Your task to perform on an android device: turn off picture-in-picture Image 0: 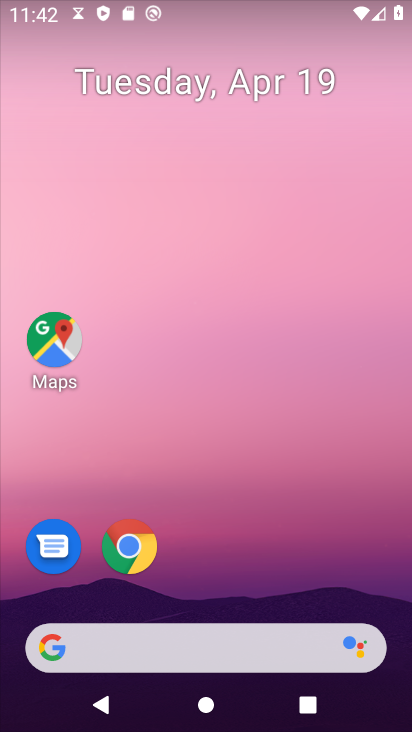
Step 0: drag from (330, 378) to (245, 6)
Your task to perform on an android device: turn off picture-in-picture Image 1: 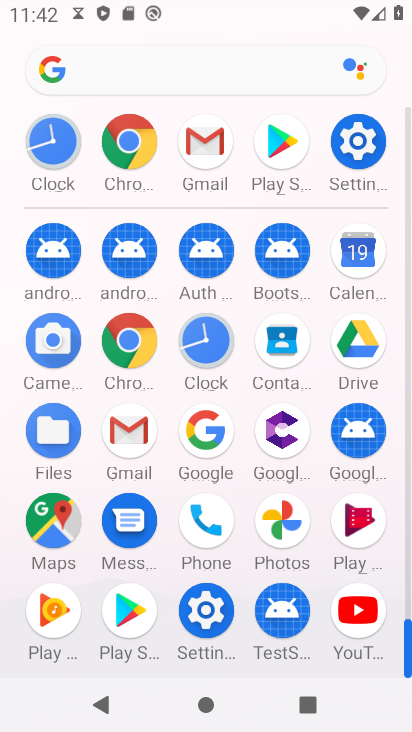
Step 1: drag from (7, 526) to (19, 341)
Your task to perform on an android device: turn off picture-in-picture Image 2: 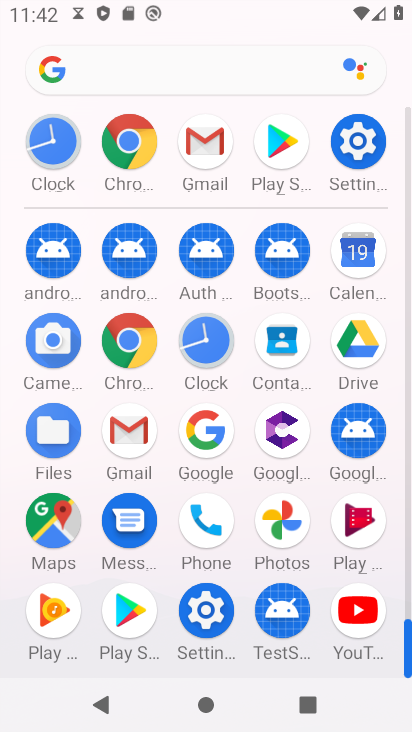
Step 2: click (205, 608)
Your task to perform on an android device: turn off picture-in-picture Image 3: 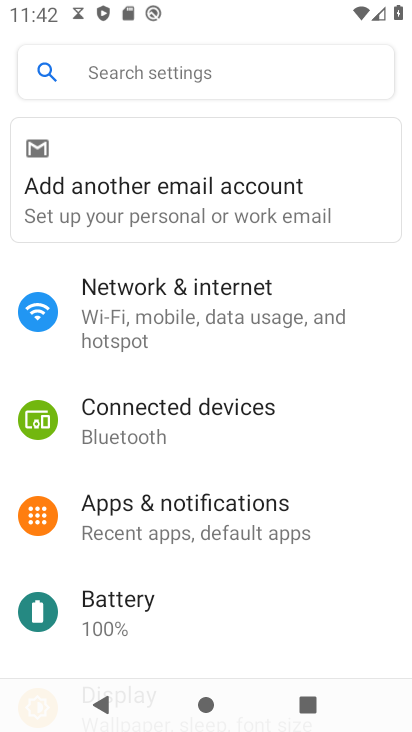
Step 3: drag from (355, 581) to (338, 135)
Your task to perform on an android device: turn off picture-in-picture Image 4: 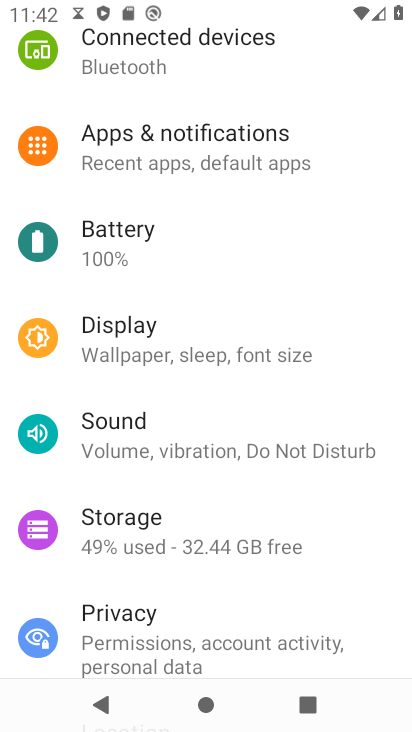
Step 4: drag from (366, 522) to (401, 80)
Your task to perform on an android device: turn off picture-in-picture Image 5: 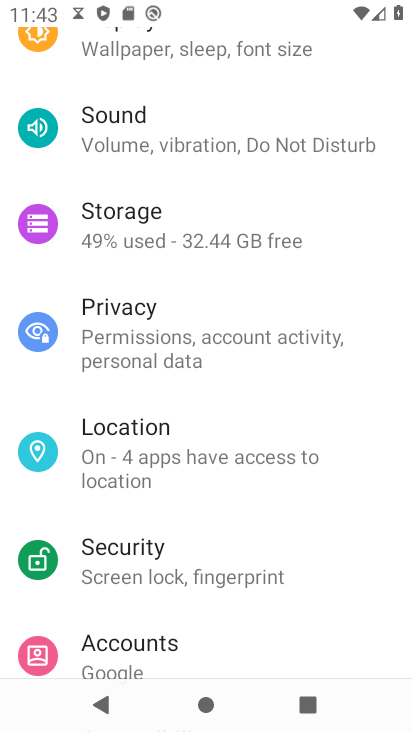
Step 5: drag from (375, 359) to (369, 90)
Your task to perform on an android device: turn off picture-in-picture Image 6: 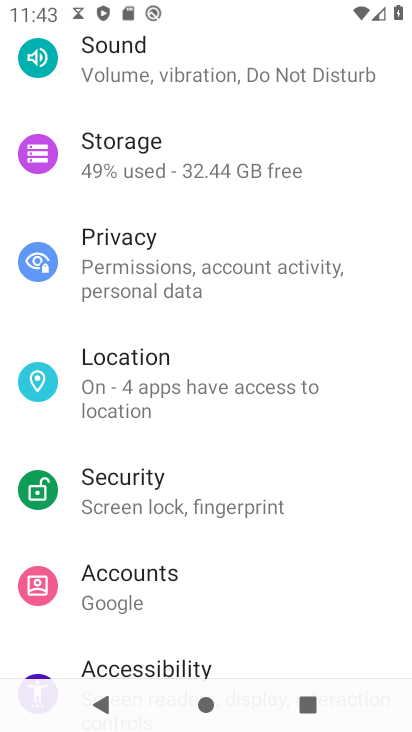
Step 6: drag from (330, 582) to (321, 147)
Your task to perform on an android device: turn off picture-in-picture Image 7: 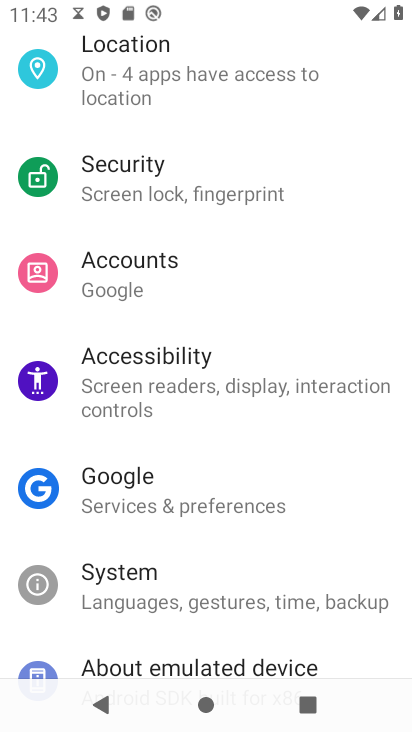
Step 7: drag from (301, 127) to (309, 453)
Your task to perform on an android device: turn off picture-in-picture Image 8: 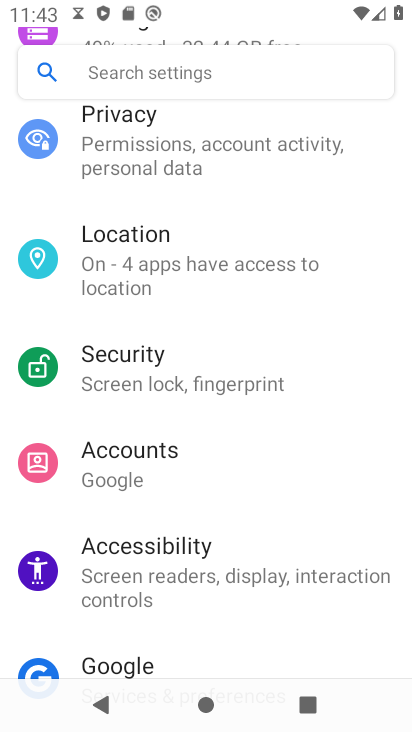
Step 8: drag from (302, 117) to (295, 534)
Your task to perform on an android device: turn off picture-in-picture Image 9: 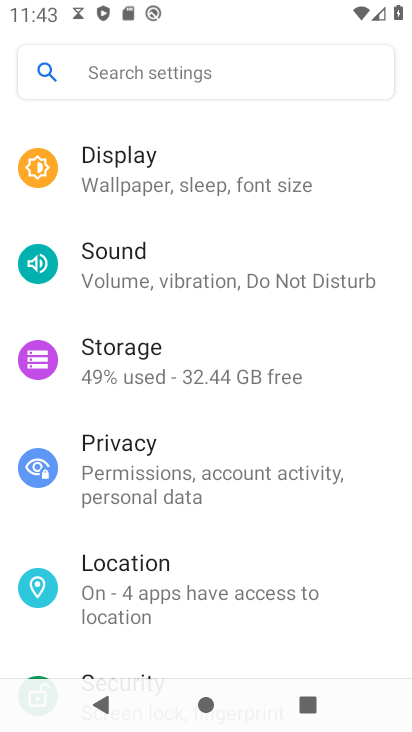
Step 9: drag from (277, 208) to (278, 551)
Your task to perform on an android device: turn off picture-in-picture Image 10: 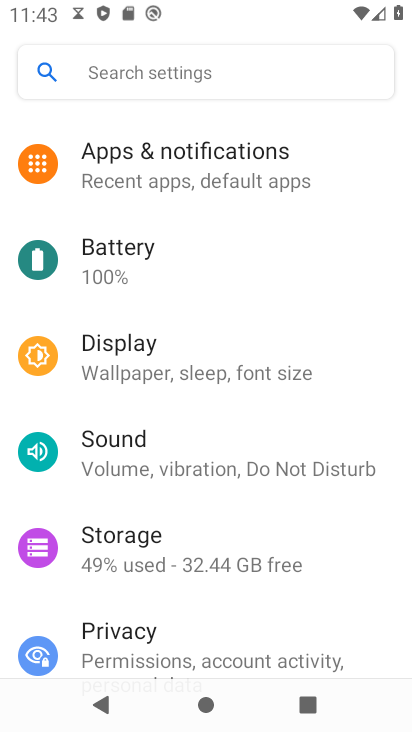
Step 10: click (201, 153)
Your task to perform on an android device: turn off picture-in-picture Image 11: 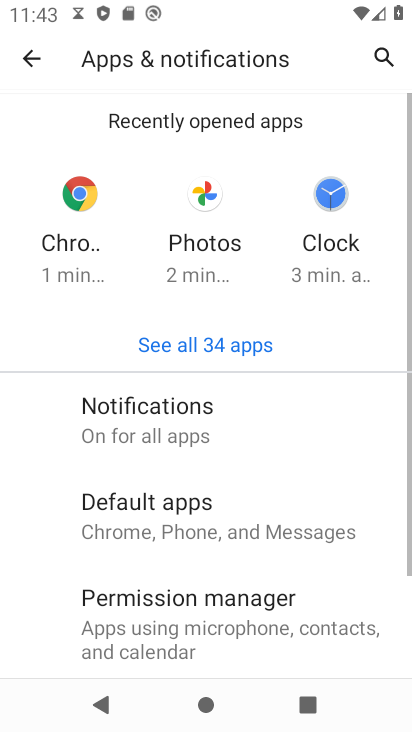
Step 11: drag from (302, 507) to (276, 174)
Your task to perform on an android device: turn off picture-in-picture Image 12: 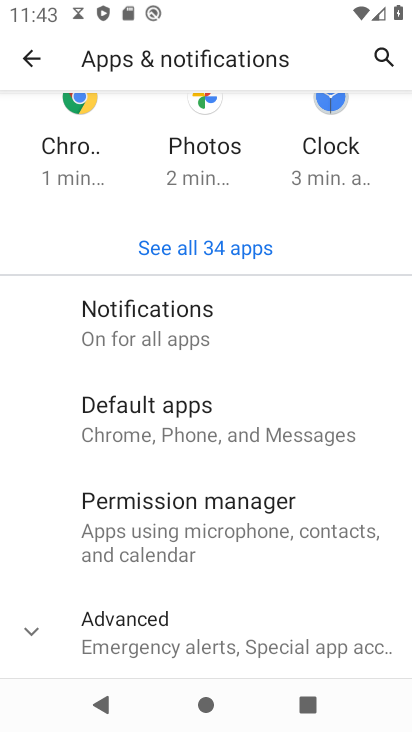
Step 12: click (217, 638)
Your task to perform on an android device: turn off picture-in-picture Image 13: 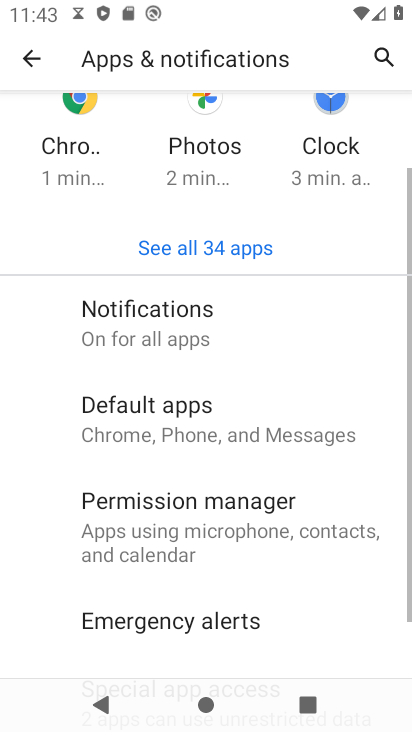
Step 13: drag from (346, 585) to (330, 255)
Your task to perform on an android device: turn off picture-in-picture Image 14: 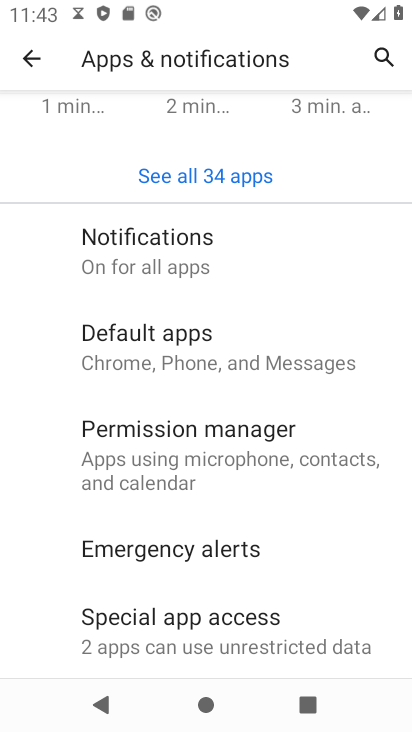
Step 14: click (215, 623)
Your task to perform on an android device: turn off picture-in-picture Image 15: 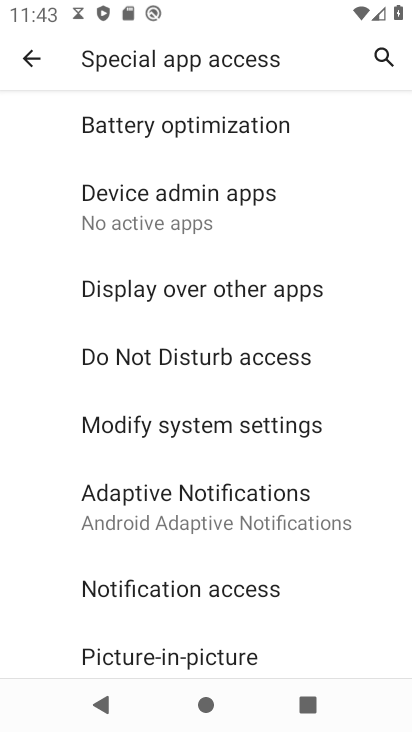
Step 15: drag from (348, 549) to (344, 133)
Your task to perform on an android device: turn off picture-in-picture Image 16: 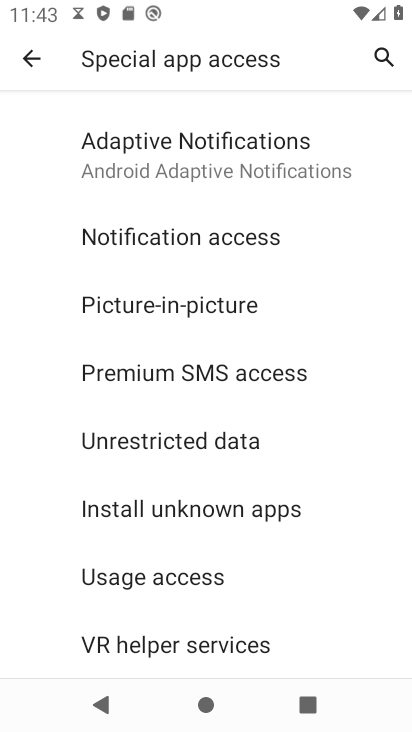
Step 16: drag from (300, 555) to (314, 197)
Your task to perform on an android device: turn off picture-in-picture Image 17: 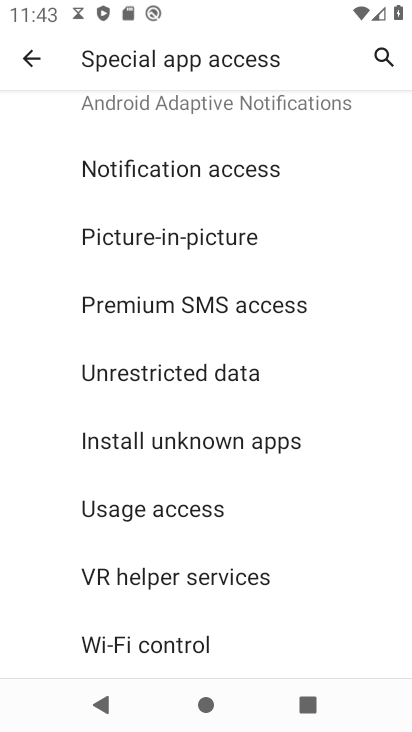
Step 17: click (254, 230)
Your task to perform on an android device: turn off picture-in-picture Image 18: 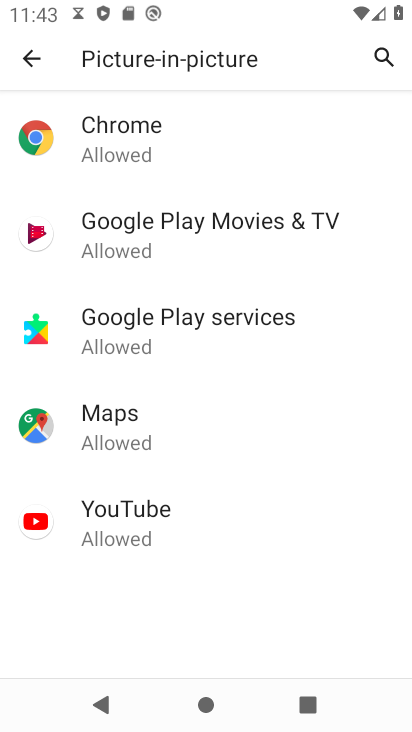
Step 18: click (199, 131)
Your task to perform on an android device: turn off picture-in-picture Image 19: 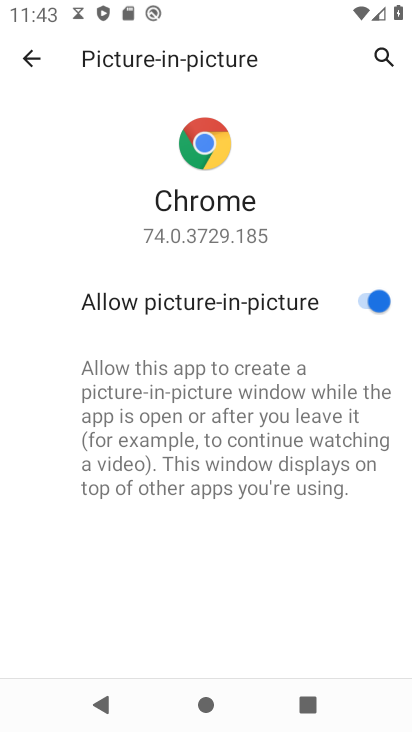
Step 19: click (363, 293)
Your task to perform on an android device: turn off picture-in-picture Image 20: 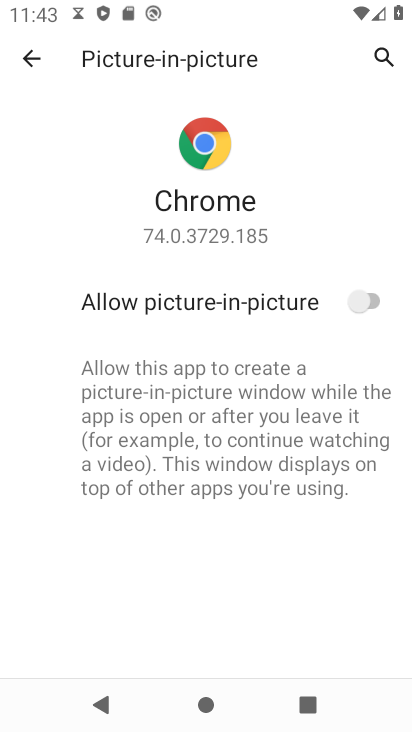
Step 20: click (17, 57)
Your task to perform on an android device: turn off picture-in-picture Image 21: 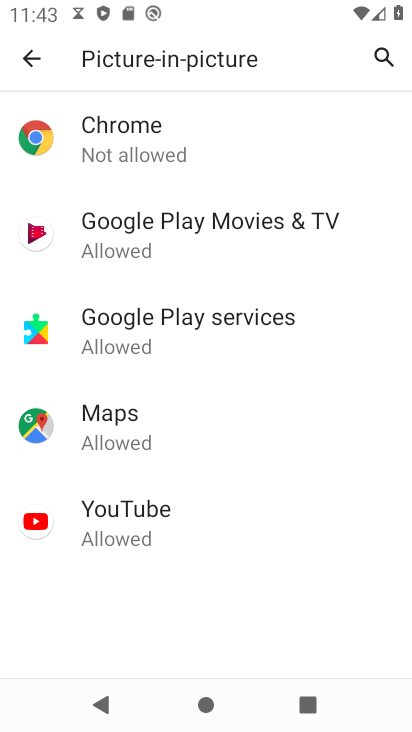
Step 21: click (204, 247)
Your task to perform on an android device: turn off picture-in-picture Image 22: 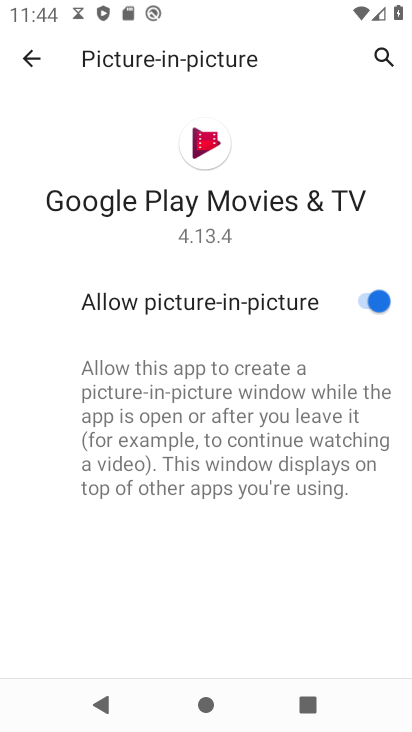
Step 22: click (366, 299)
Your task to perform on an android device: turn off picture-in-picture Image 23: 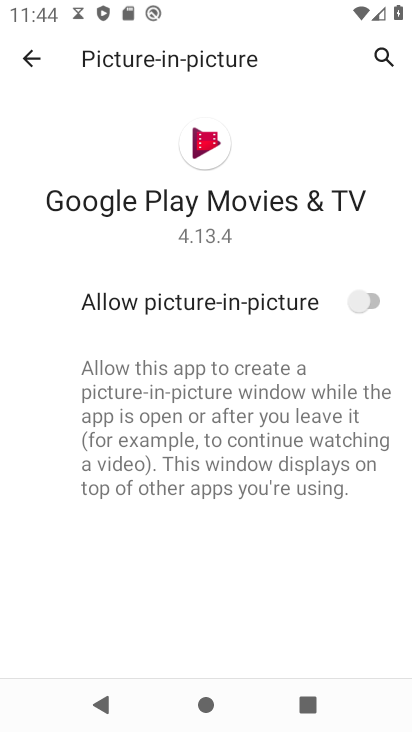
Step 23: click (33, 58)
Your task to perform on an android device: turn off picture-in-picture Image 24: 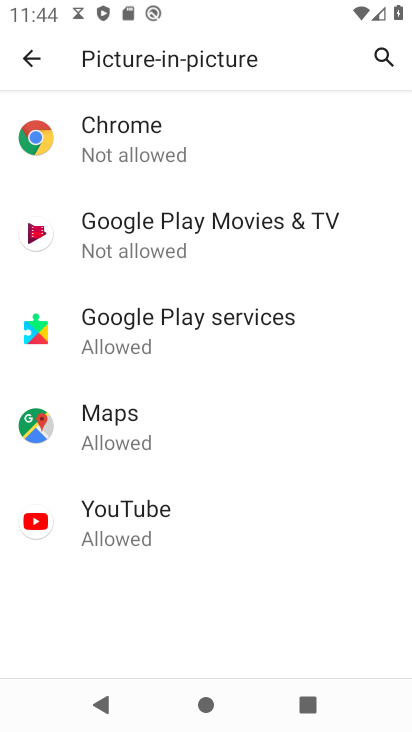
Step 24: click (149, 327)
Your task to perform on an android device: turn off picture-in-picture Image 25: 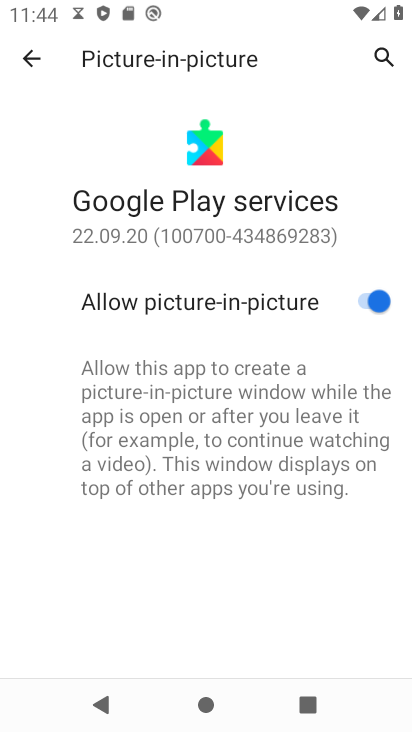
Step 25: click (355, 301)
Your task to perform on an android device: turn off picture-in-picture Image 26: 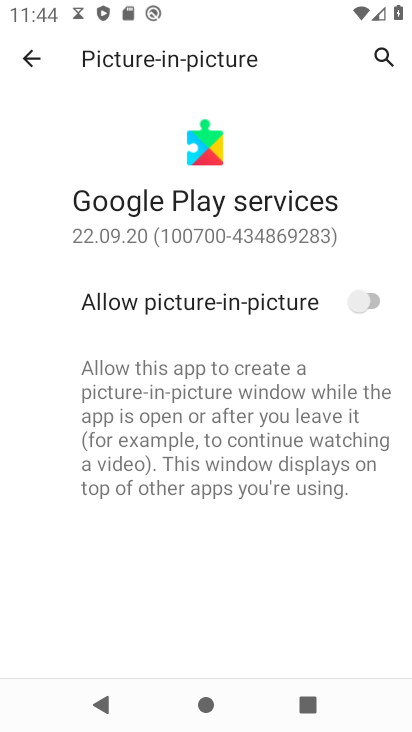
Step 26: click (28, 59)
Your task to perform on an android device: turn off picture-in-picture Image 27: 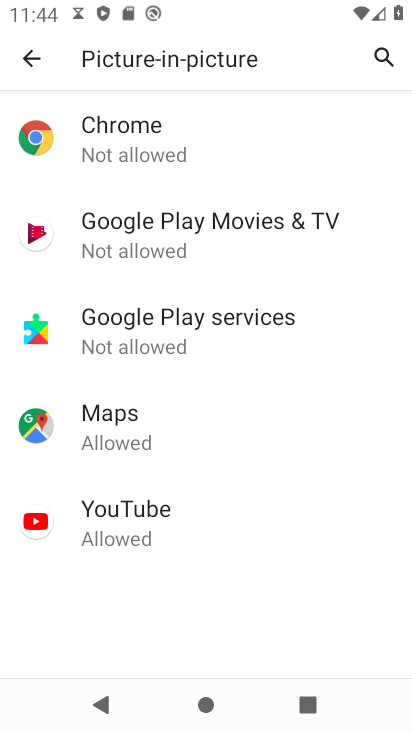
Step 27: click (137, 425)
Your task to perform on an android device: turn off picture-in-picture Image 28: 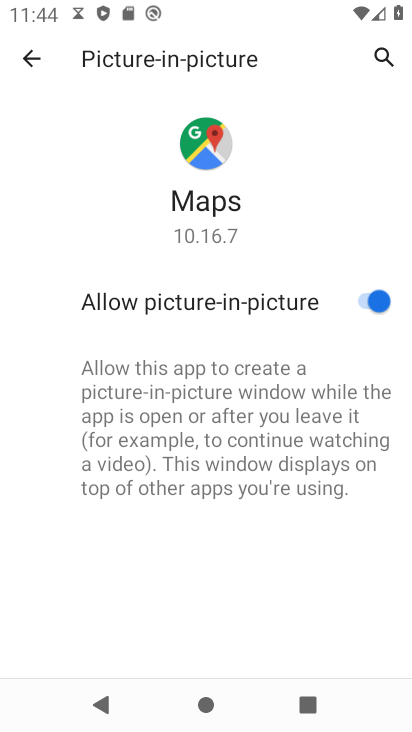
Step 28: click (361, 300)
Your task to perform on an android device: turn off picture-in-picture Image 29: 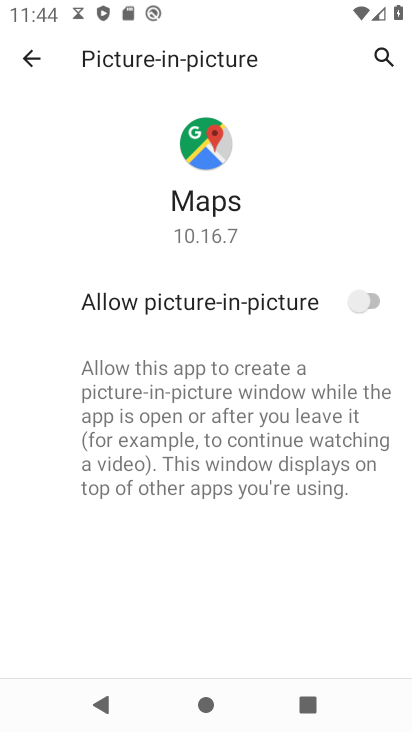
Step 29: click (35, 55)
Your task to perform on an android device: turn off picture-in-picture Image 30: 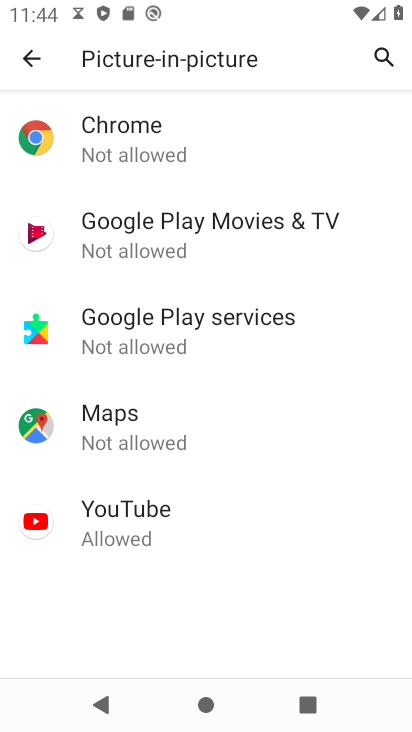
Step 30: click (161, 509)
Your task to perform on an android device: turn off picture-in-picture Image 31: 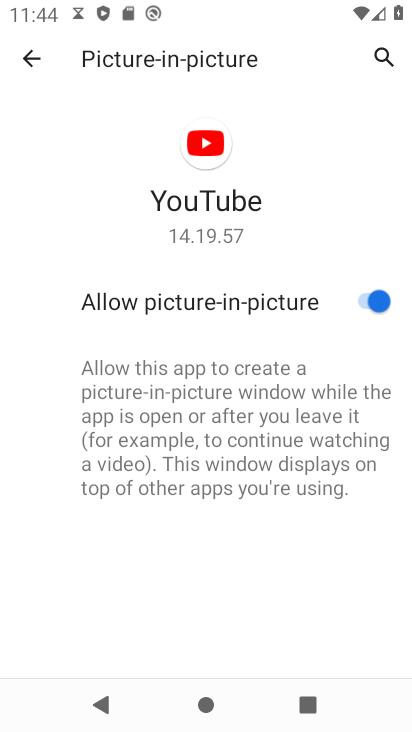
Step 31: click (373, 297)
Your task to perform on an android device: turn off picture-in-picture Image 32: 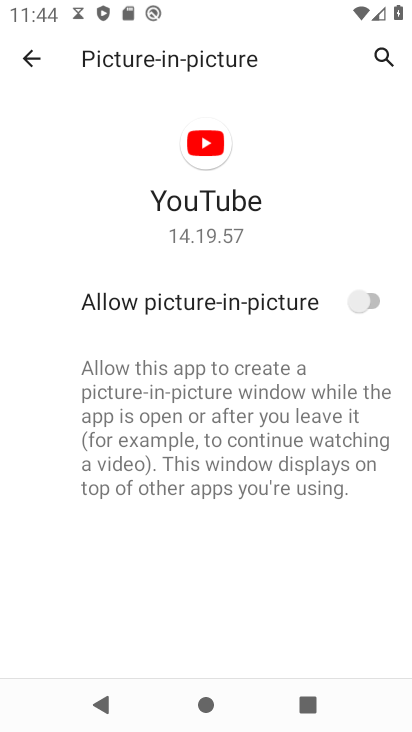
Step 32: click (22, 48)
Your task to perform on an android device: turn off picture-in-picture Image 33: 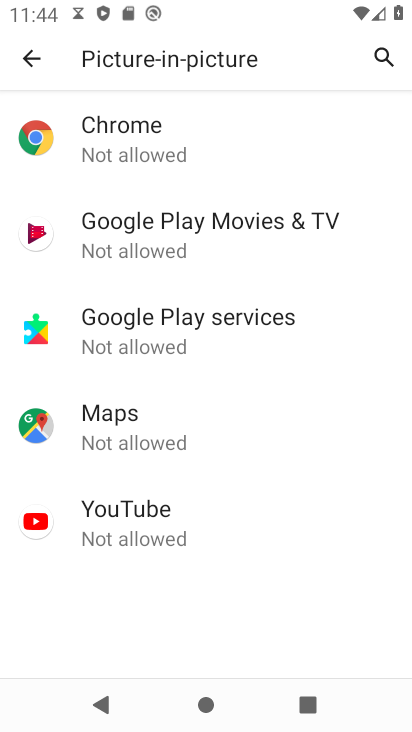
Step 33: task complete